Your task to perform on an android device: Go to Google Image 0: 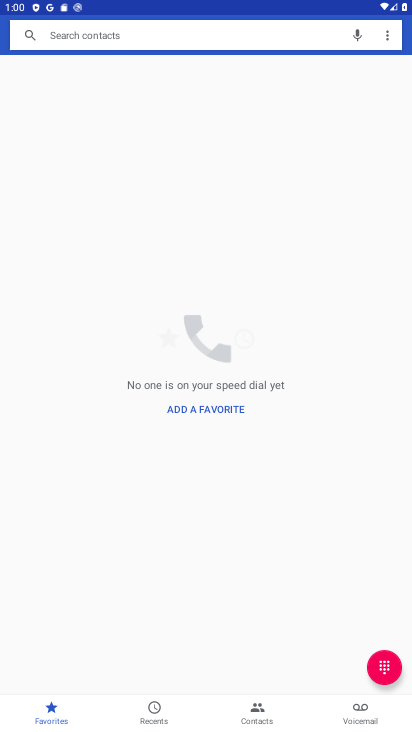
Step 0: press home button
Your task to perform on an android device: Go to Google Image 1: 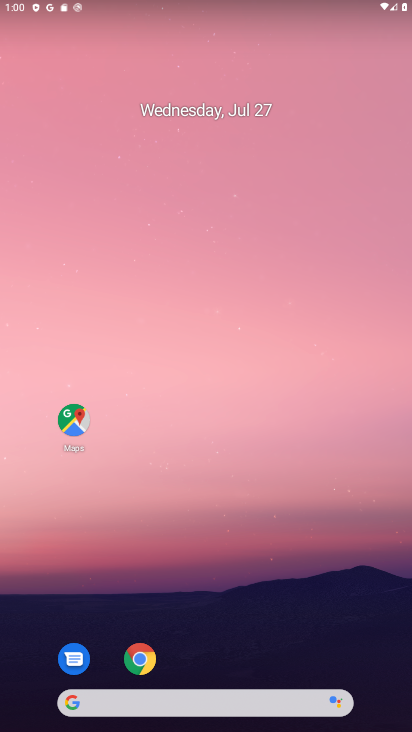
Step 1: drag from (266, 610) to (251, 260)
Your task to perform on an android device: Go to Google Image 2: 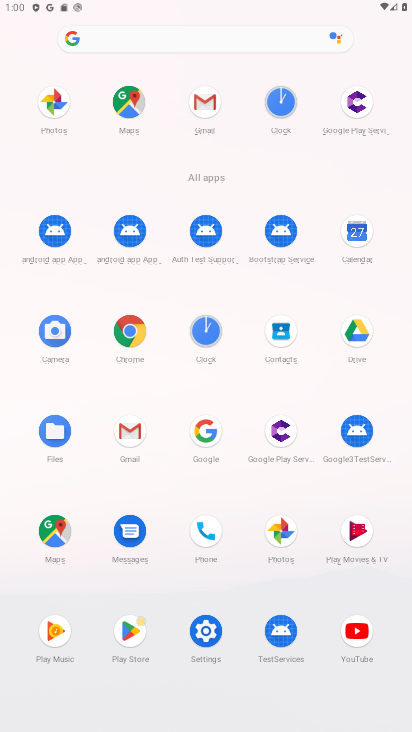
Step 2: click (205, 429)
Your task to perform on an android device: Go to Google Image 3: 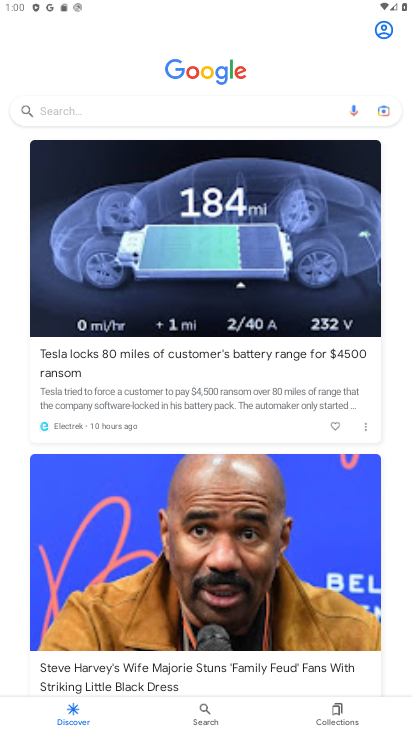
Step 3: task complete